Your task to perform on an android device: Search for pizza restaurants on Maps Image 0: 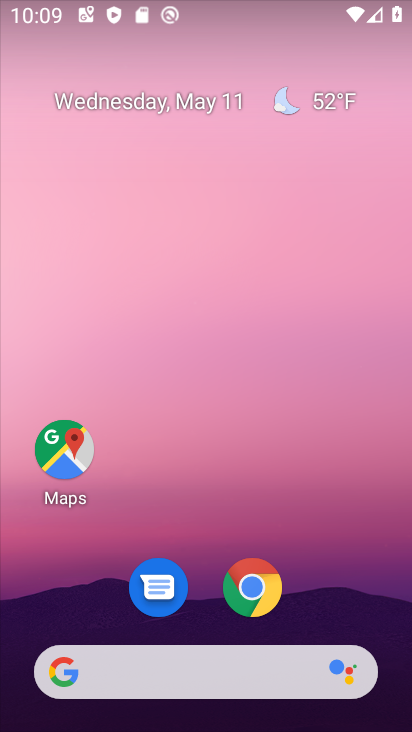
Step 0: drag from (278, 644) to (285, 291)
Your task to perform on an android device: Search for pizza restaurants on Maps Image 1: 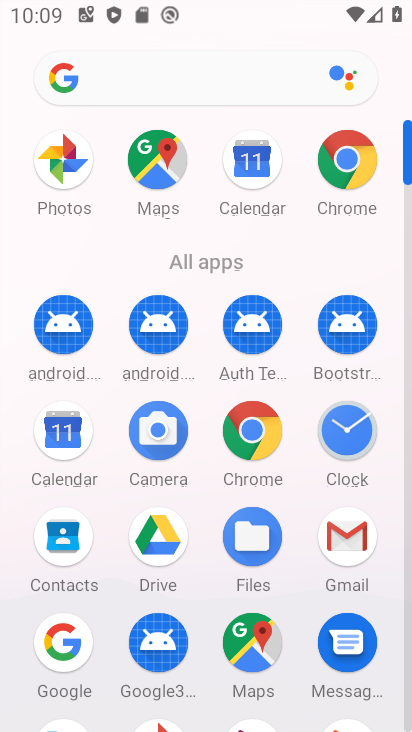
Step 1: click (165, 189)
Your task to perform on an android device: Search for pizza restaurants on Maps Image 2: 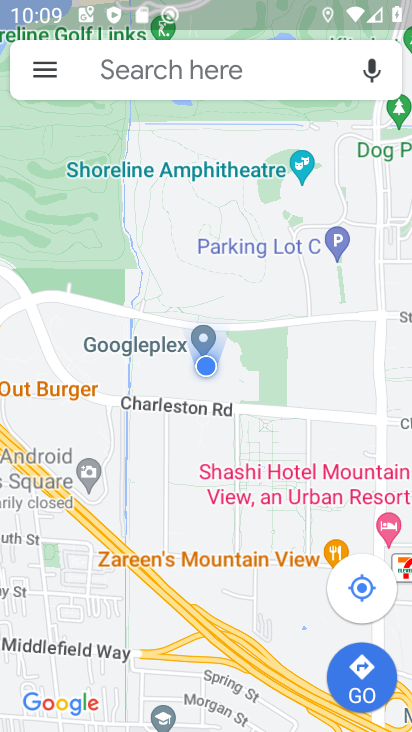
Step 2: click (168, 67)
Your task to perform on an android device: Search for pizza restaurants on Maps Image 3: 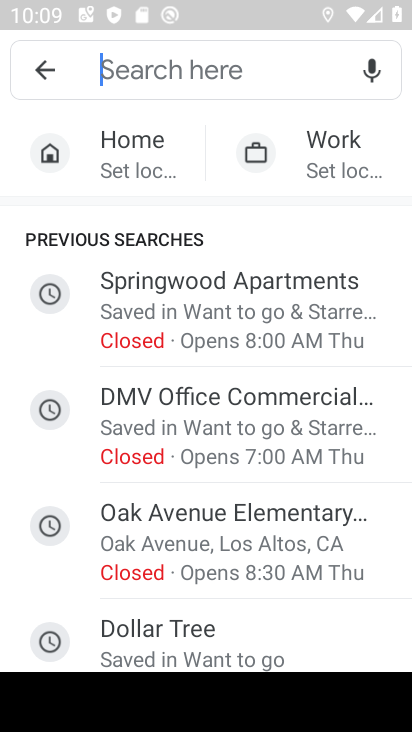
Step 3: drag from (392, 690) to (371, 622)
Your task to perform on an android device: Search for pizza restaurants on Maps Image 4: 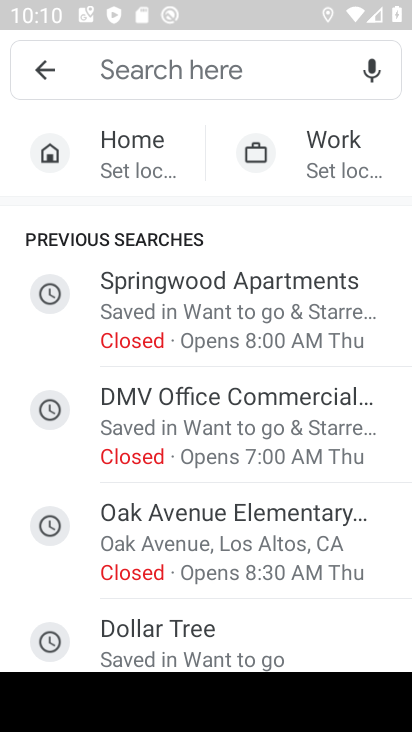
Step 4: click (390, 704)
Your task to perform on an android device: Search for pizza restaurants on Maps Image 5: 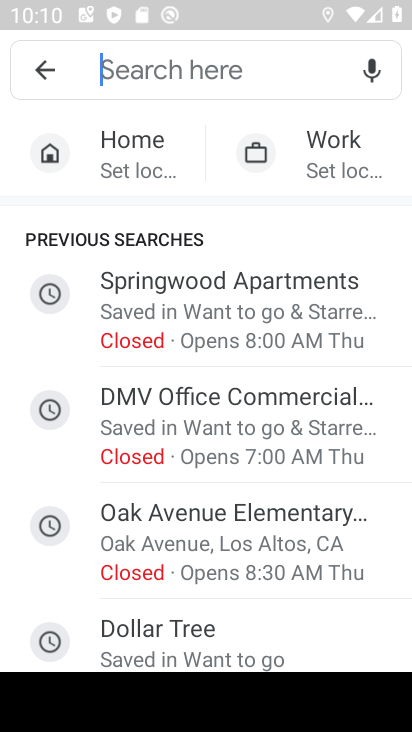
Step 5: click (168, 74)
Your task to perform on an android device: Search for pizza restaurants on Maps Image 6: 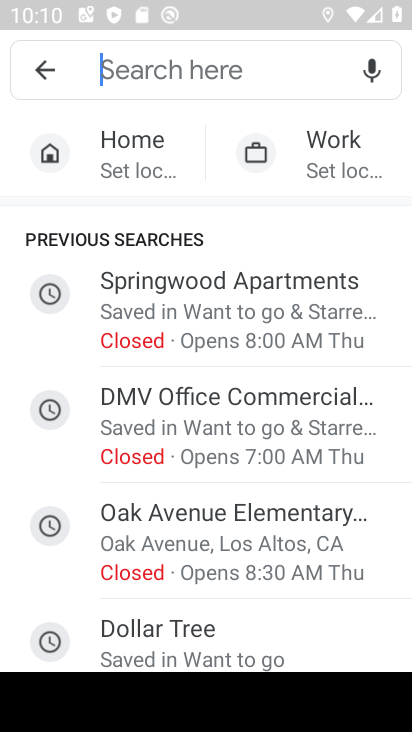
Step 6: drag from (384, 708) to (342, 517)
Your task to perform on an android device: Search for pizza restaurants on Maps Image 7: 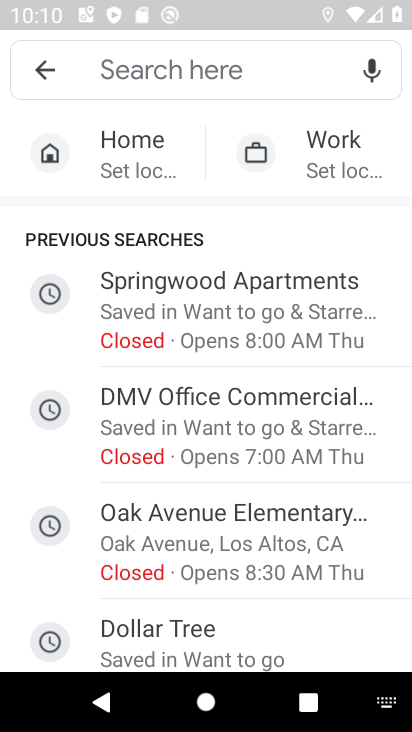
Step 7: click (391, 711)
Your task to perform on an android device: Search for pizza restaurants on Maps Image 8: 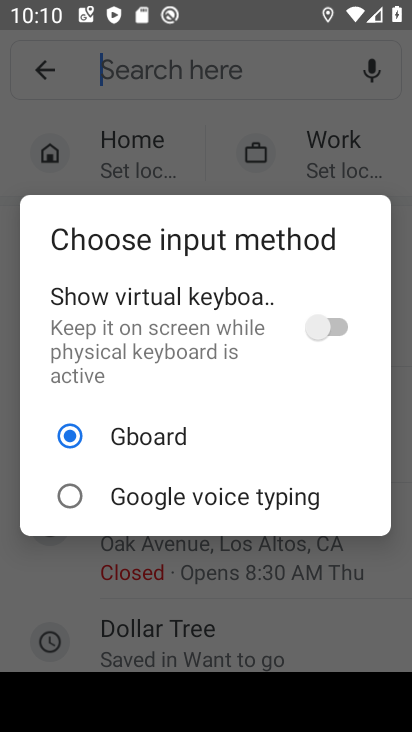
Step 8: click (326, 332)
Your task to perform on an android device: Search for pizza restaurants on Maps Image 9: 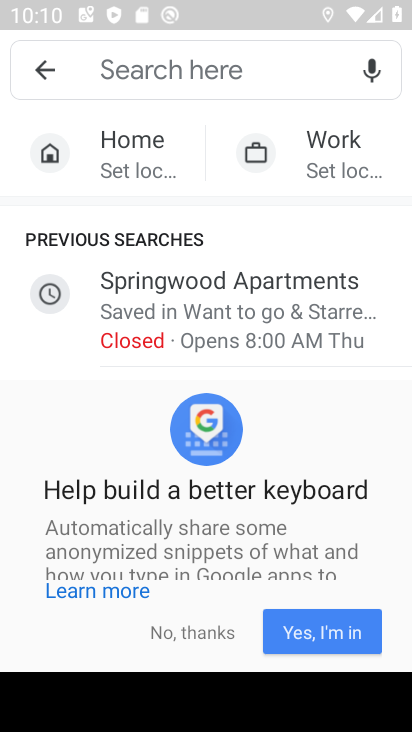
Step 9: click (179, 628)
Your task to perform on an android device: Search for pizza restaurants on Maps Image 10: 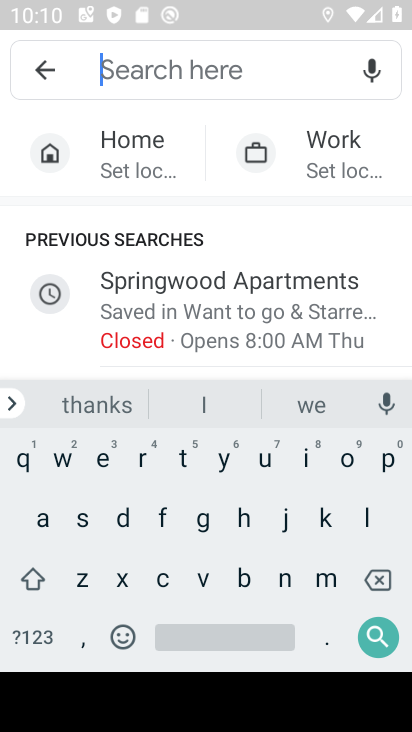
Step 10: click (380, 464)
Your task to perform on an android device: Search for pizza restaurants on Maps Image 11: 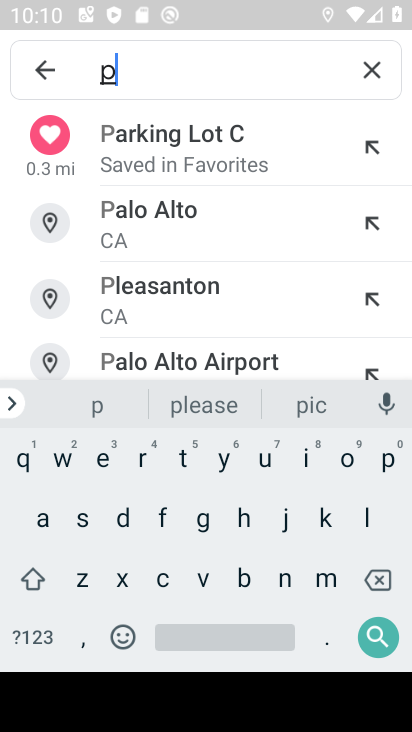
Step 11: click (298, 460)
Your task to perform on an android device: Search for pizza restaurants on Maps Image 12: 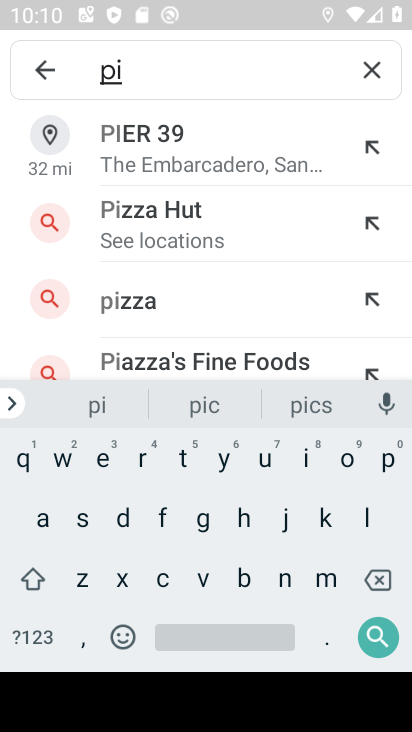
Step 12: click (81, 581)
Your task to perform on an android device: Search for pizza restaurants on Maps Image 13: 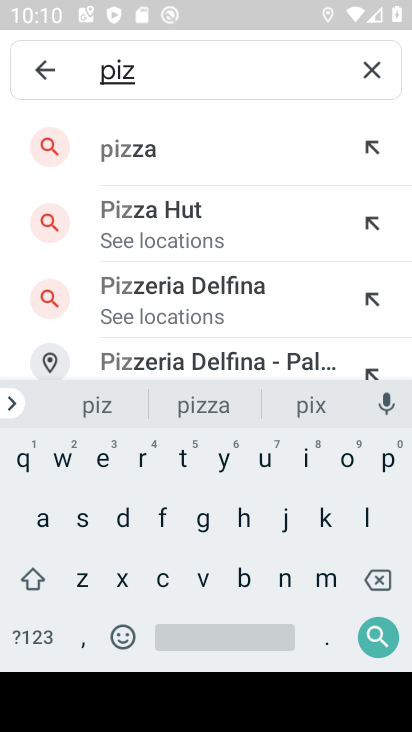
Step 13: click (79, 583)
Your task to perform on an android device: Search for pizza restaurants on Maps Image 14: 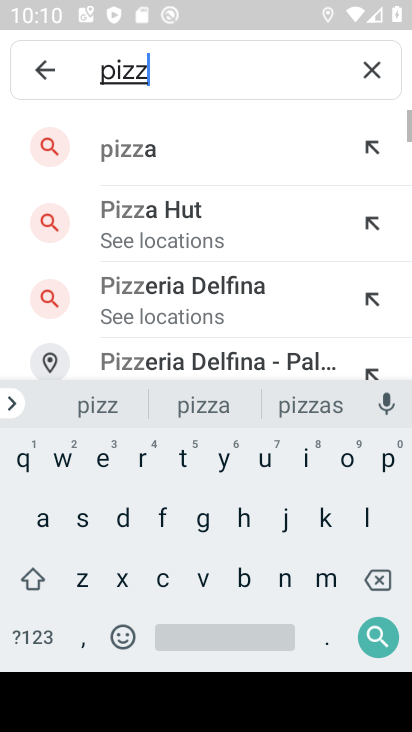
Step 14: click (38, 518)
Your task to perform on an android device: Search for pizza restaurants on Maps Image 15: 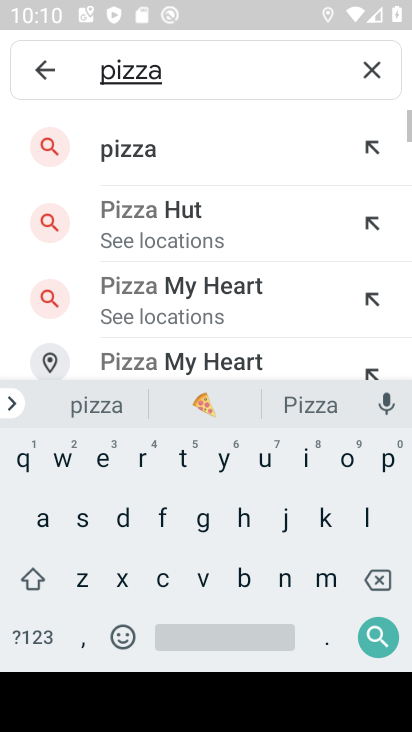
Step 15: click (202, 639)
Your task to perform on an android device: Search for pizza restaurants on Maps Image 16: 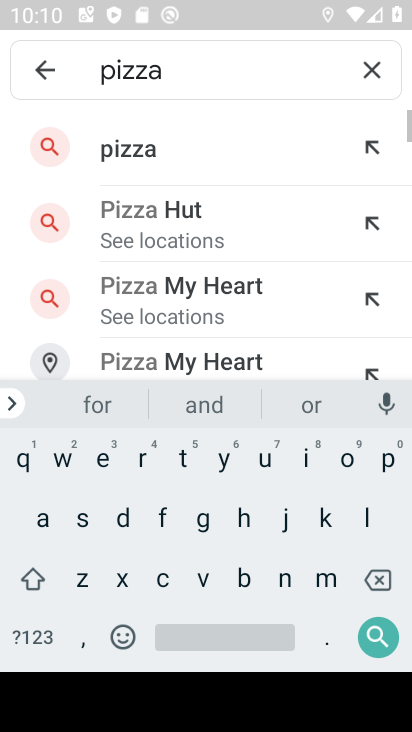
Step 16: click (133, 458)
Your task to perform on an android device: Search for pizza restaurants on Maps Image 17: 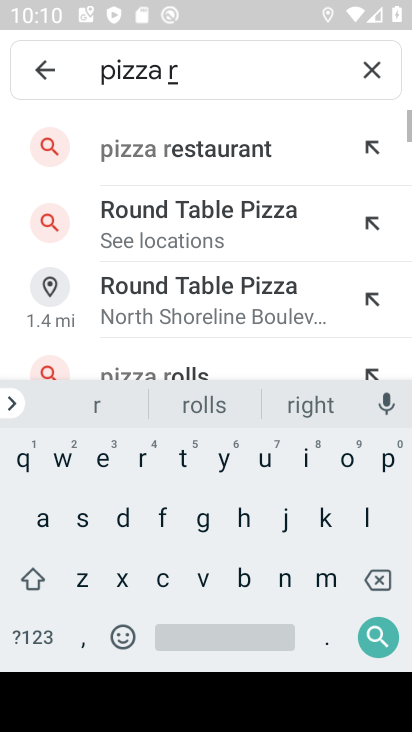
Step 17: click (223, 170)
Your task to perform on an android device: Search for pizza restaurants on Maps Image 18: 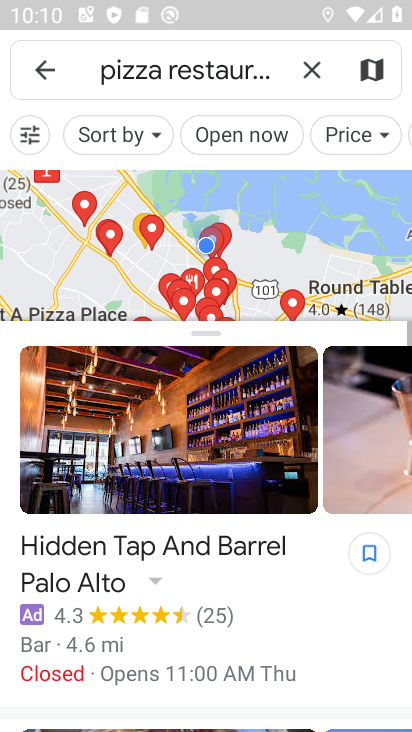
Step 18: click (278, 269)
Your task to perform on an android device: Search for pizza restaurants on Maps Image 19: 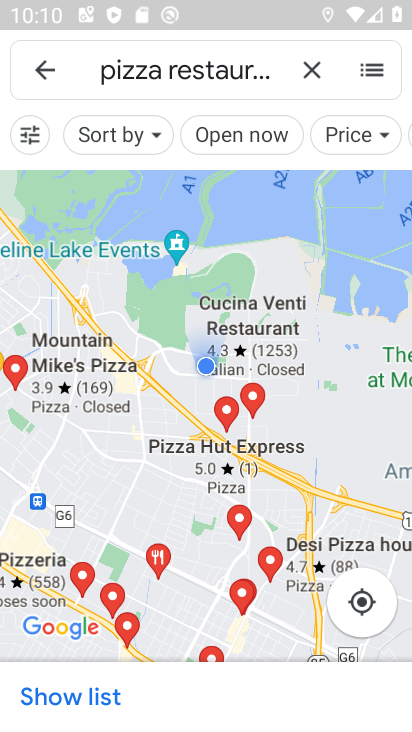
Step 19: task complete